Your task to perform on an android device: Toggle the flashlight Image 0: 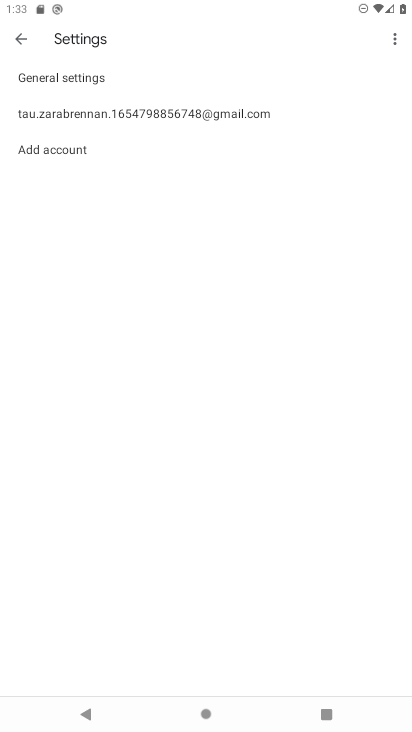
Step 0: press home button
Your task to perform on an android device: Toggle the flashlight Image 1: 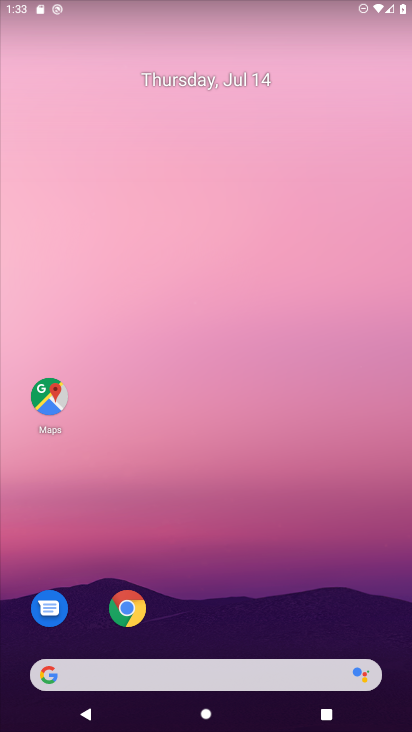
Step 1: drag from (256, 721) to (234, 44)
Your task to perform on an android device: Toggle the flashlight Image 2: 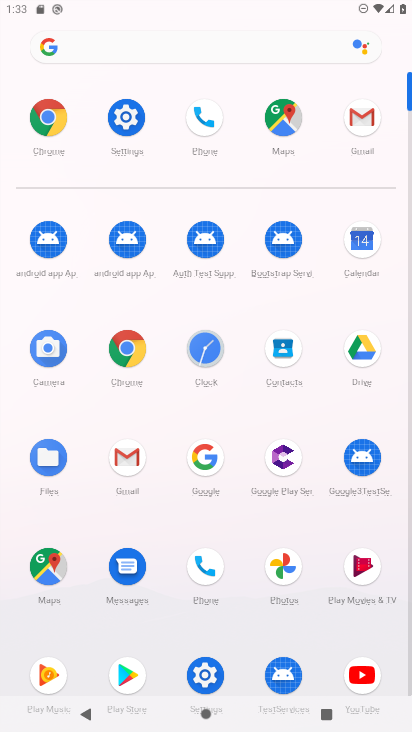
Step 2: click (125, 112)
Your task to perform on an android device: Toggle the flashlight Image 3: 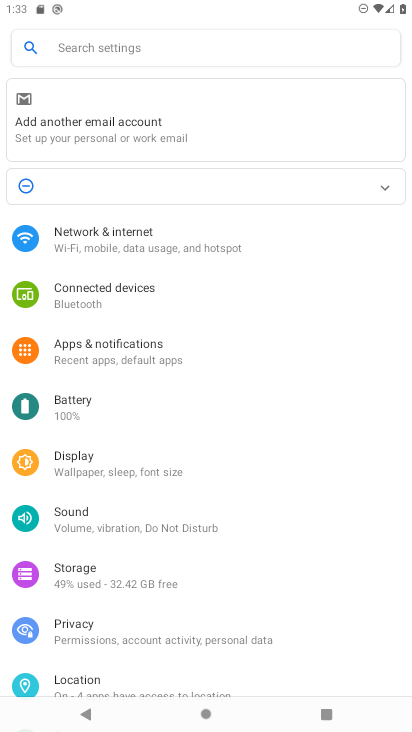
Step 3: task complete